Your task to perform on an android device: check battery use Image 0: 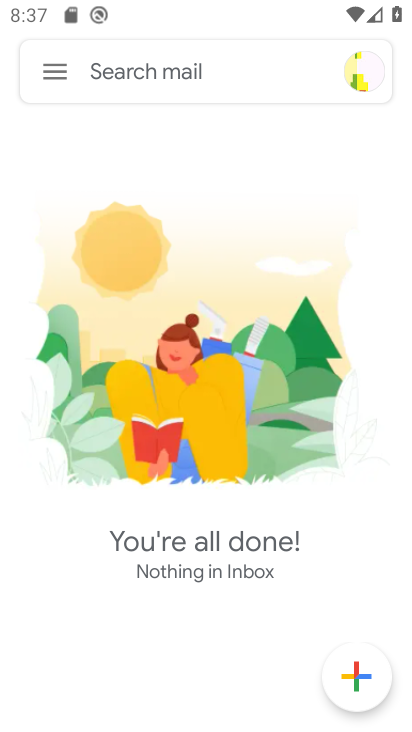
Step 0: press home button
Your task to perform on an android device: check battery use Image 1: 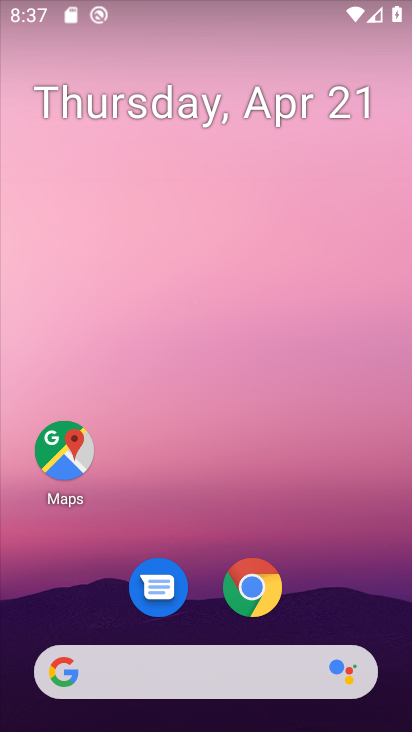
Step 1: click (314, 202)
Your task to perform on an android device: check battery use Image 2: 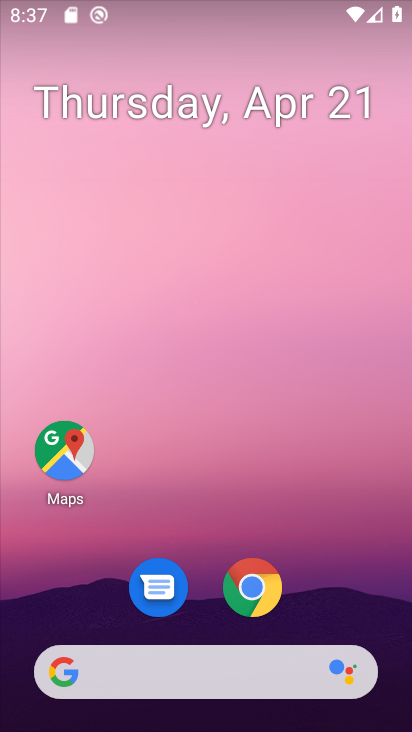
Step 2: click (354, 250)
Your task to perform on an android device: check battery use Image 3: 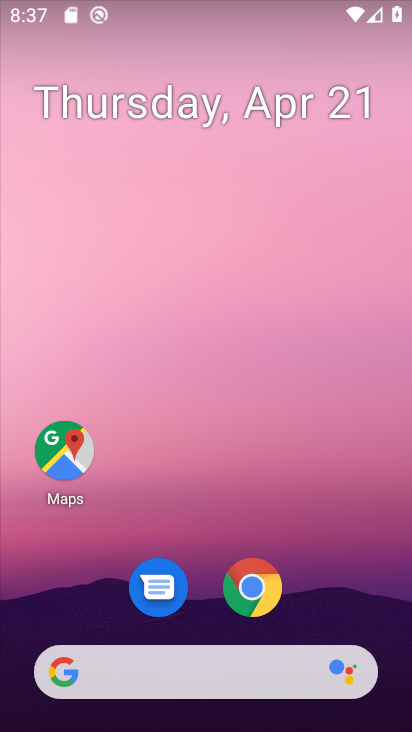
Step 3: drag from (398, 286) to (388, 174)
Your task to perform on an android device: check battery use Image 4: 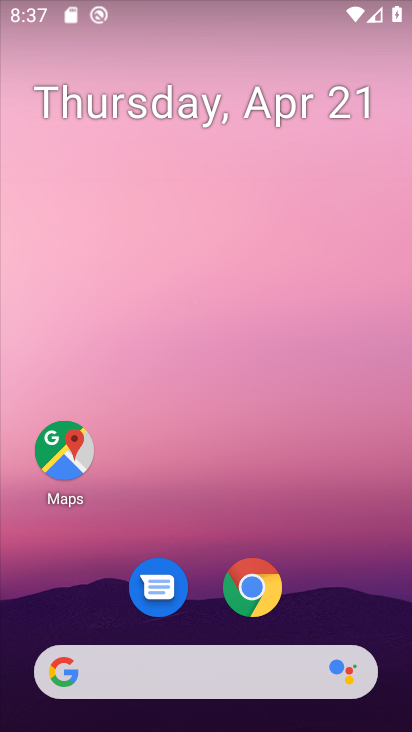
Step 4: drag from (346, 477) to (322, 360)
Your task to perform on an android device: check battery use Image 5: 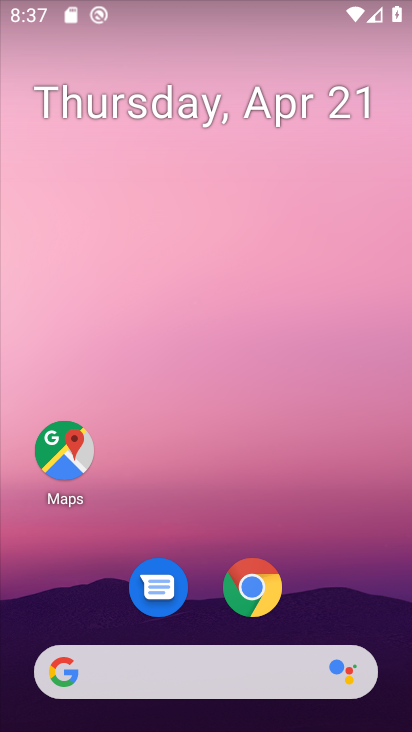
Step 5: drag from (386, 662) to (359, 380)
Your task to perform on an android device: check battery use Image 6: 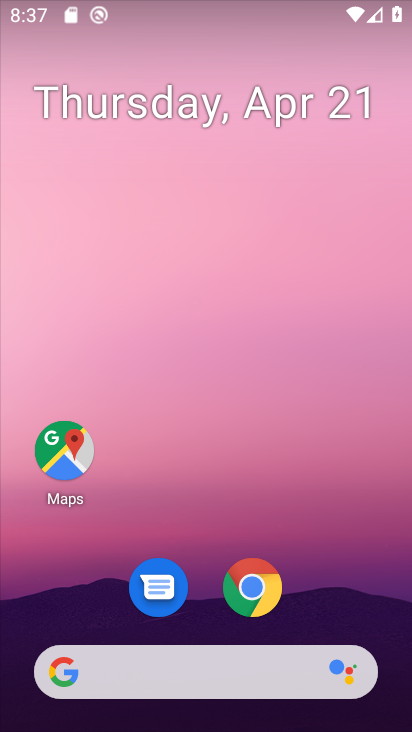
Step 6: click (355, 285)
Your task to perform on an android device: check battery use Image 7: 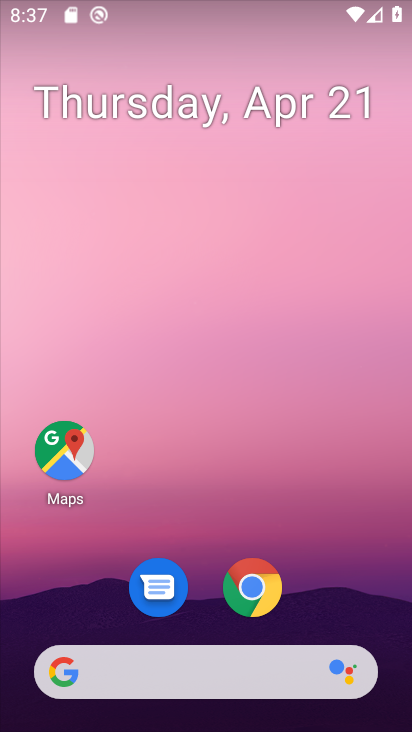
Step 7: drag from (370, 510) to (370, 203)
Your task to perform on an android device: check battery use Image 8: 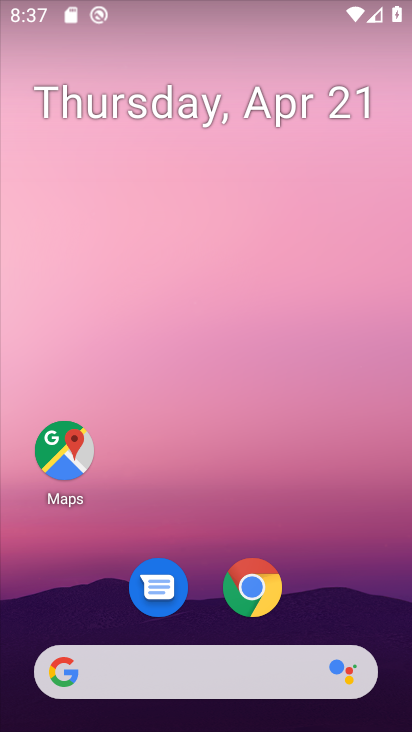
Step 8: drag from (394, 645) to (380, 202)
Your task to perform on an android device: check battery use Image 9: 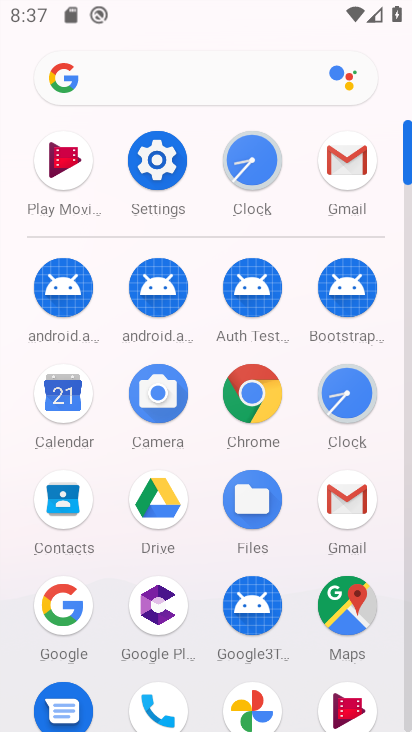
Step 9: click (160, 167)
Your task to perform on an android device: check battery use Image 10: 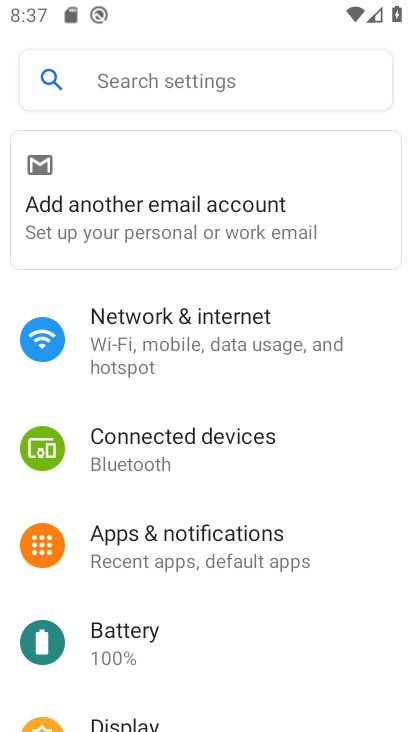
Step 10: click (119, 630)
Your task to perform on an android device: check battery use Image 11: 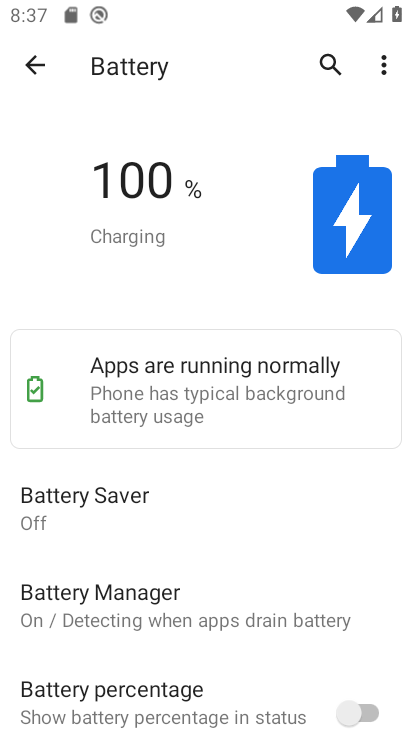
Step 11: click (382, 64)
Your task to perform on an android device: check battery use Image 12: 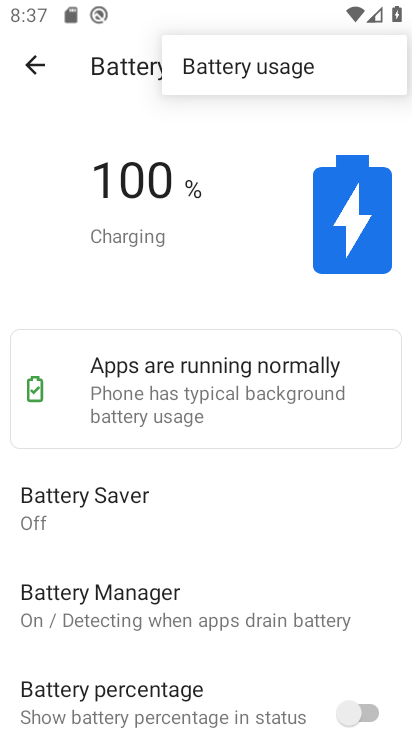
Step 12: click (277, 72)
Your task to perform on an android device: check battery use Image 13: 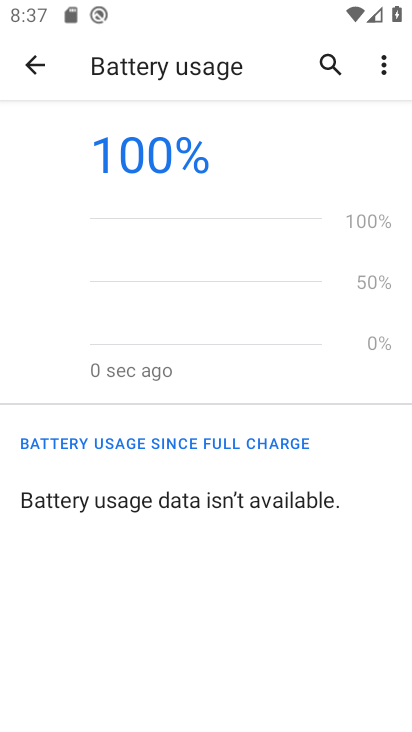
Step 13: task complete